Your task to perform on an android device: clear history in the chrome app Image 0: 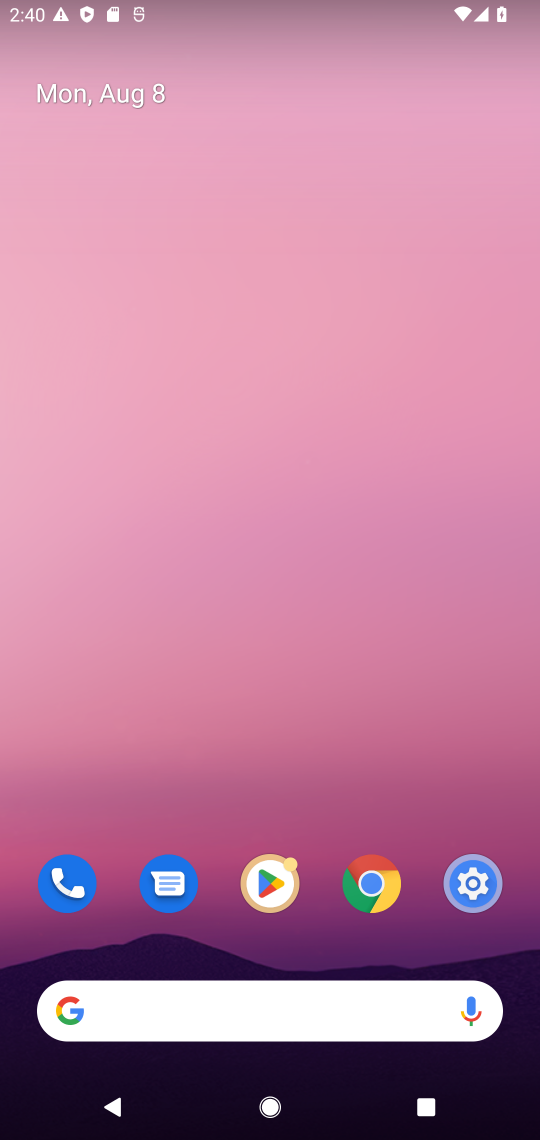
Step 0: click (360, 882)
Your task to perform on an android device: clear history in the chrome app Image 1: 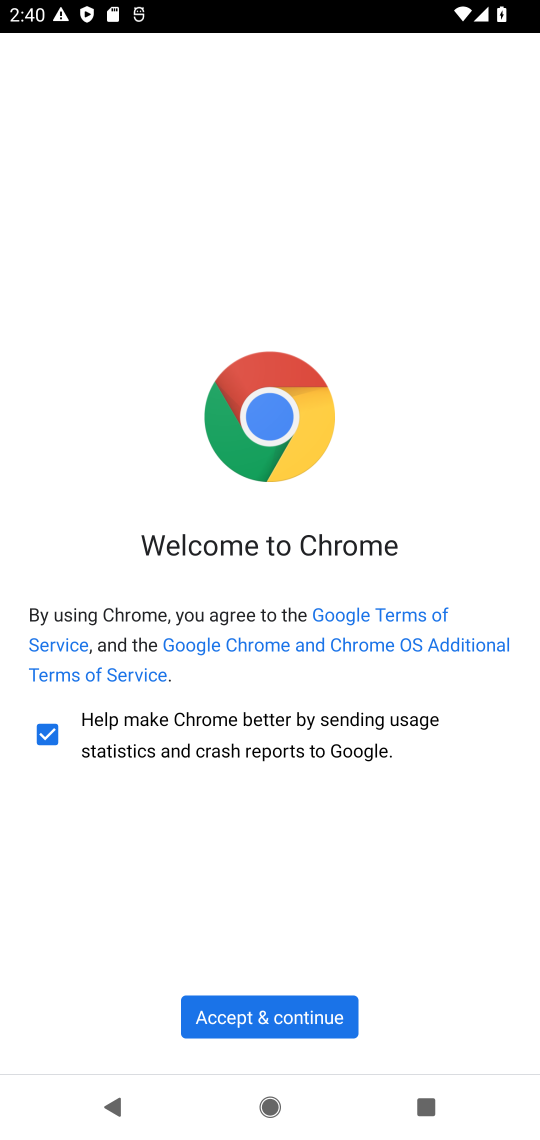
Step 1: click (322, 1031)
Your task to perform on an android device: clear history in the chrome app Image 2: 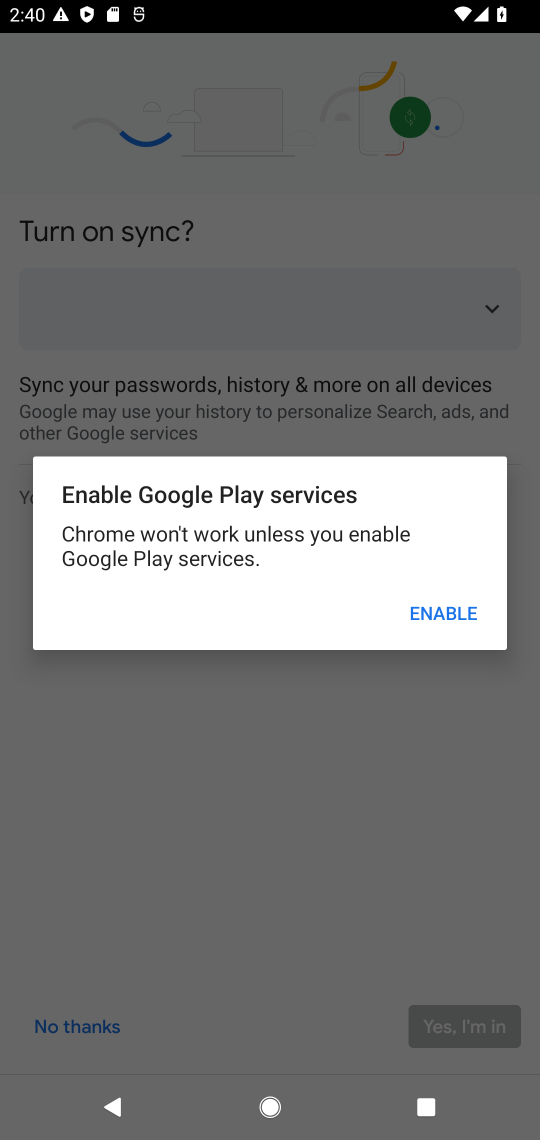
Step 2: click (438, 607)
Your task to perform on an android device: clear history in the chrome app Image 3: 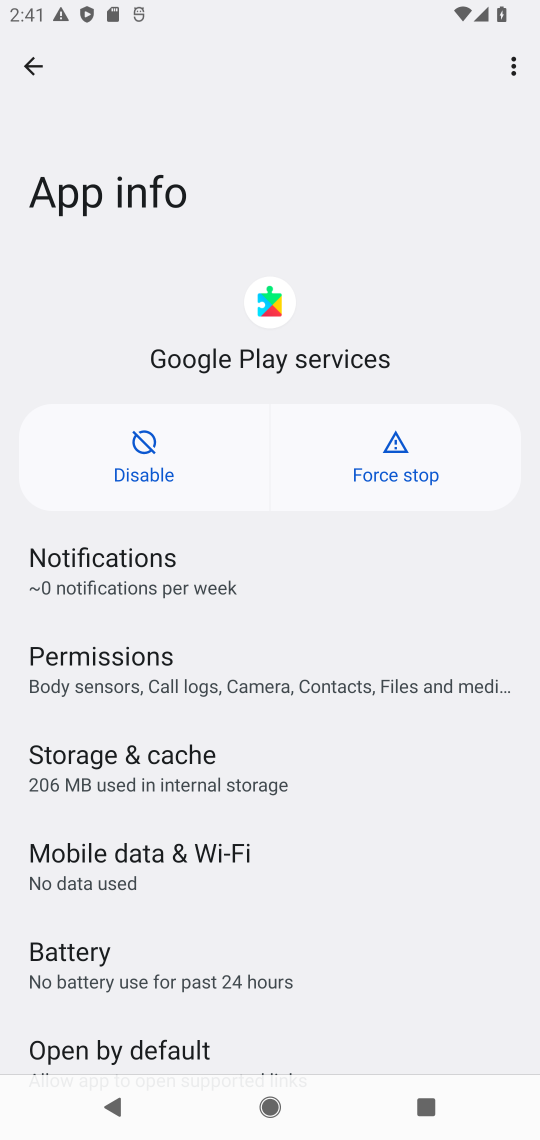
Step 3: press home button
Your task to perform on an android device: clear history in the chrome app Image 4: 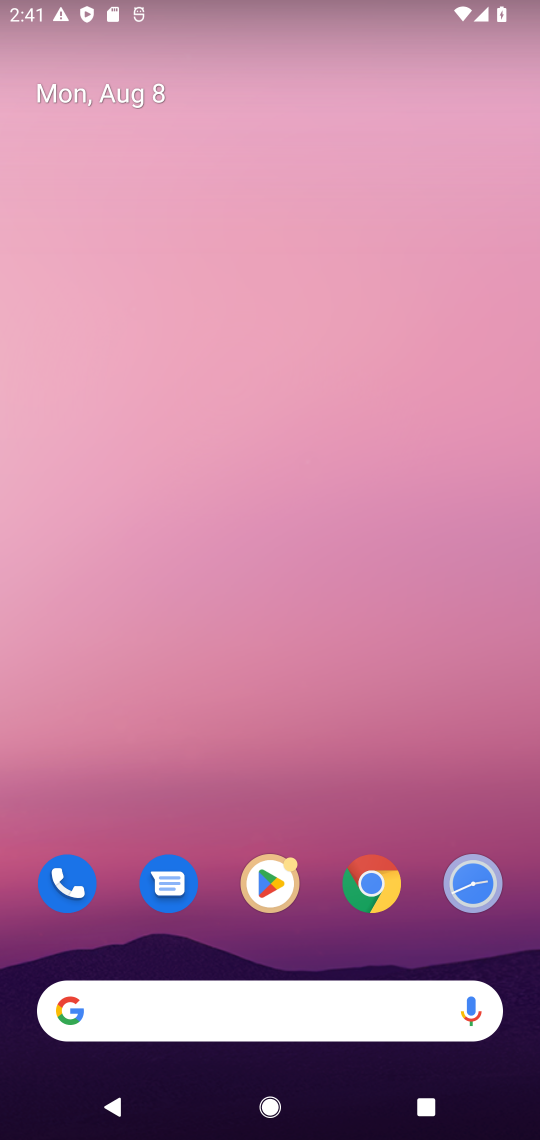
Step 4: click (367, 903)
Your task to perform on an android device: clear history in the chrome app Image 5: 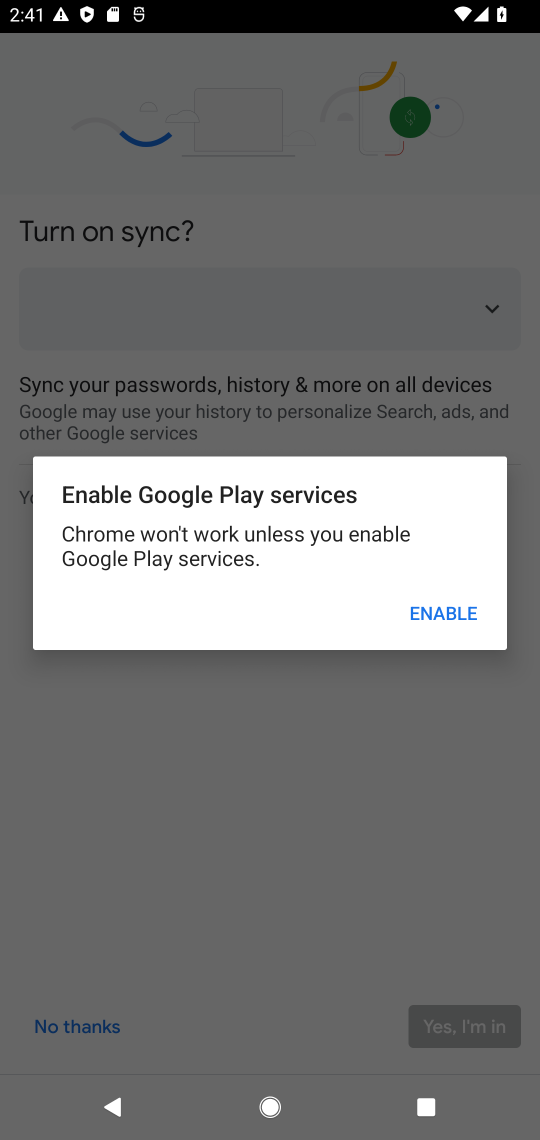
Step 5: click (452, 701)
Your task to perform on an android device: clear history in the chrome app Image 6: 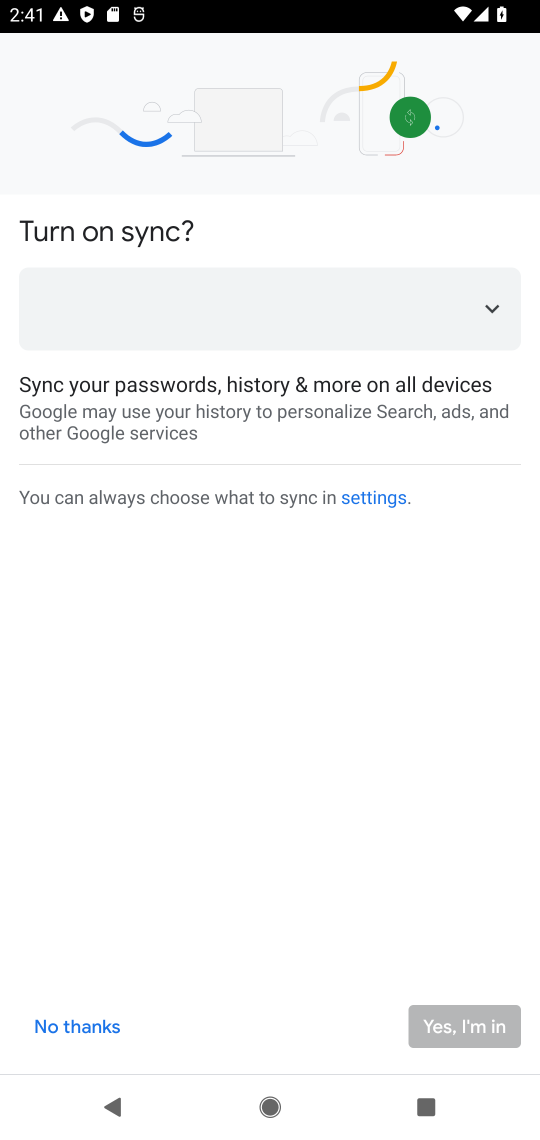
Step 6: click (108, 1037)
Your task to perform on an android device: clear history in the chrome app Image 7: 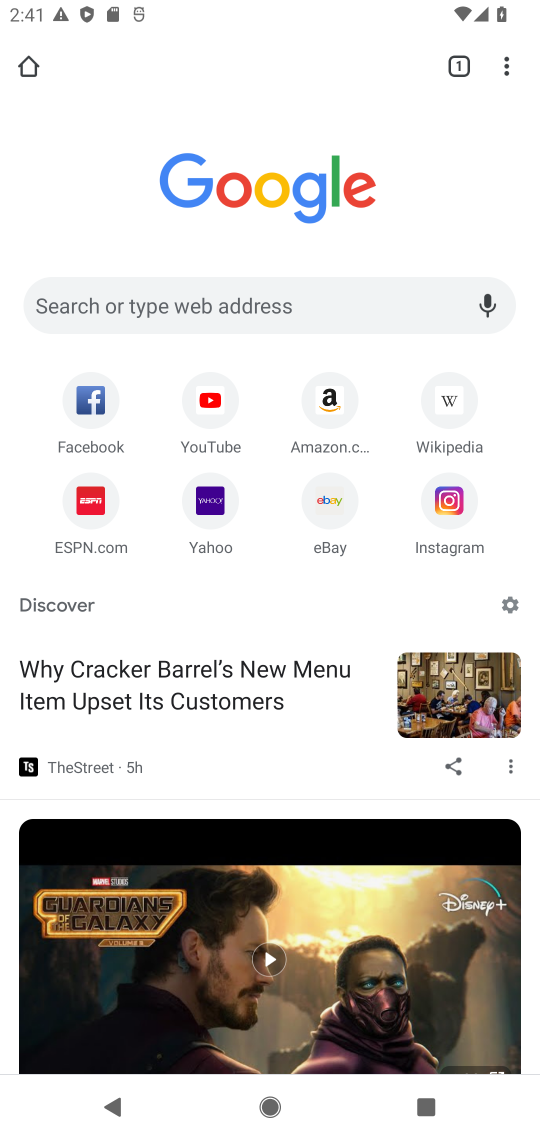
Step 7: click (512, 68)
Your task to perform on an android device: clear history in the chrome app Image 8: 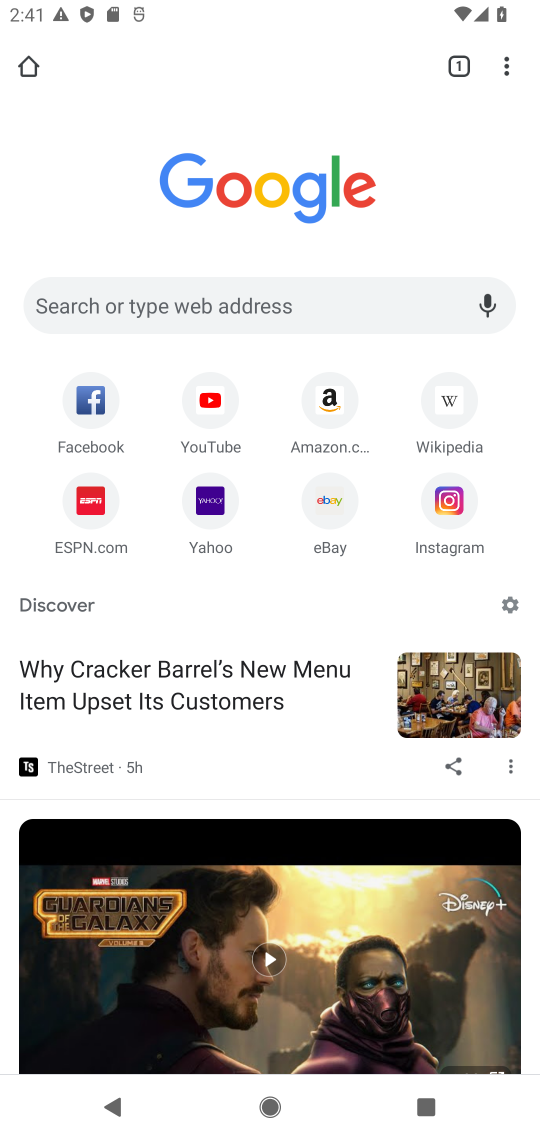
Step 8: click (506, 68)
Your task to perform on an android device: clear history in the chrome app Image 9: 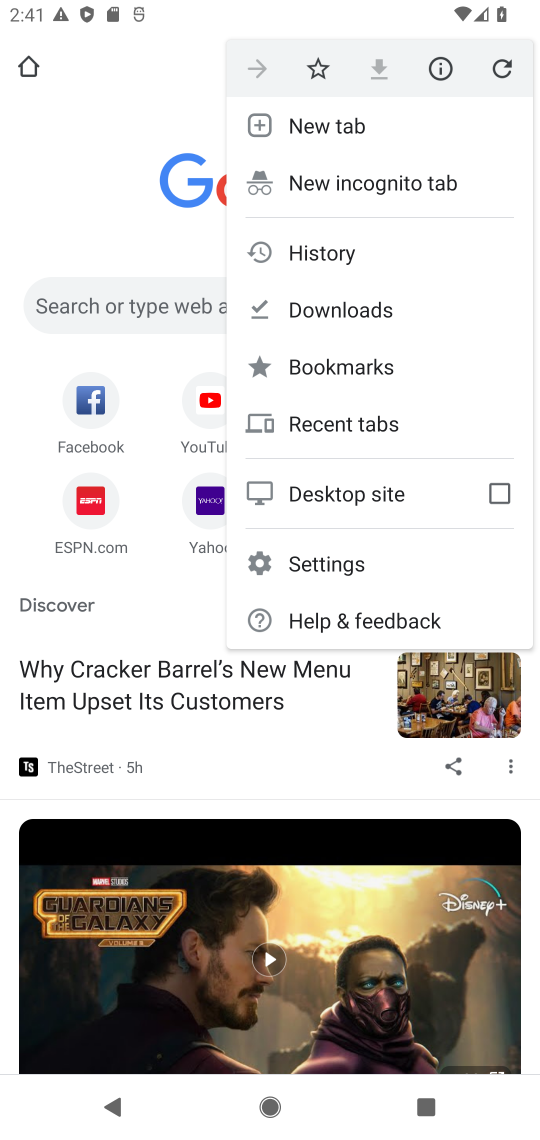
Step 9: click (343, 255)
Your task to perform on an android device: clear history in the chrome app Image 10: 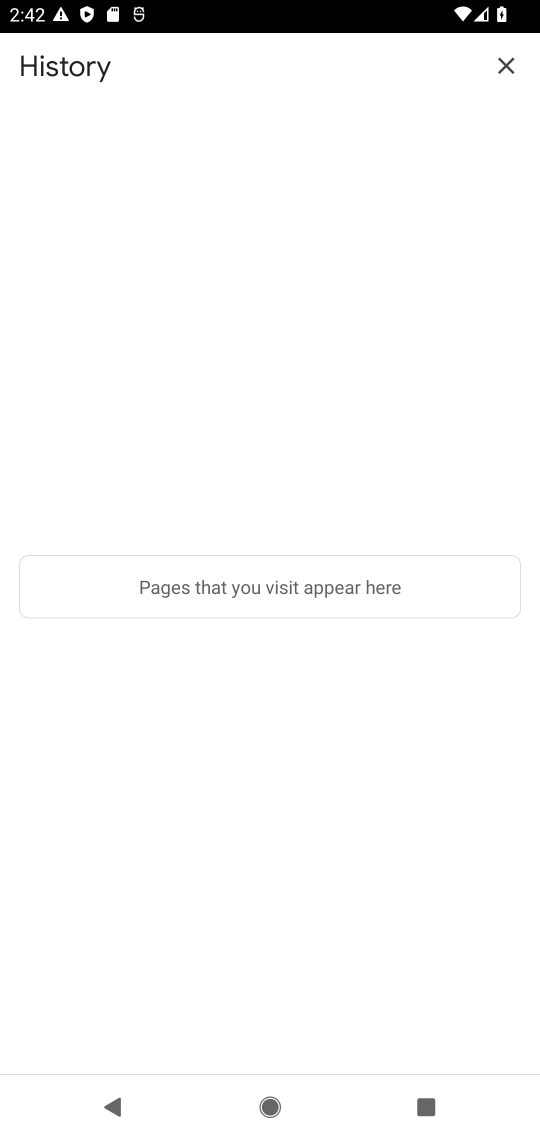
Step 10: task complete